Your task to perform on an android device: Go to Yahoo.com Image 0: 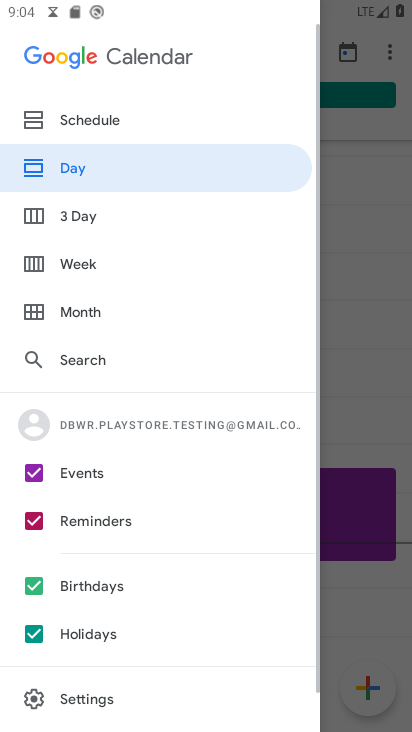
Step 0: press home button
Your task to perform on an android device: Go to Yahoo.com Image 1: 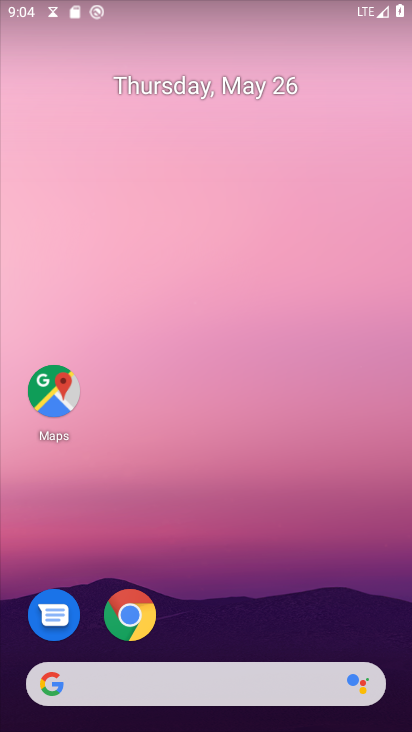
Step 1: drag from (216, 607) to (246, 242)
Your task to perform on an android device: Go to Yahoo.com Image 2: 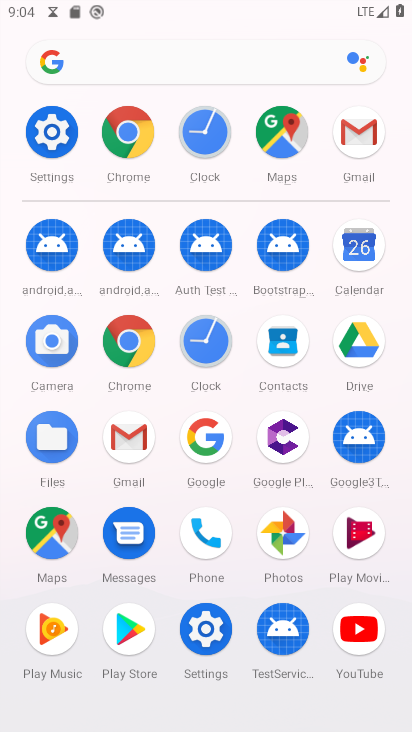
Step 2: click (125, 129)
Your task to perform on an android device: Go to Yahoo.com Image 3: 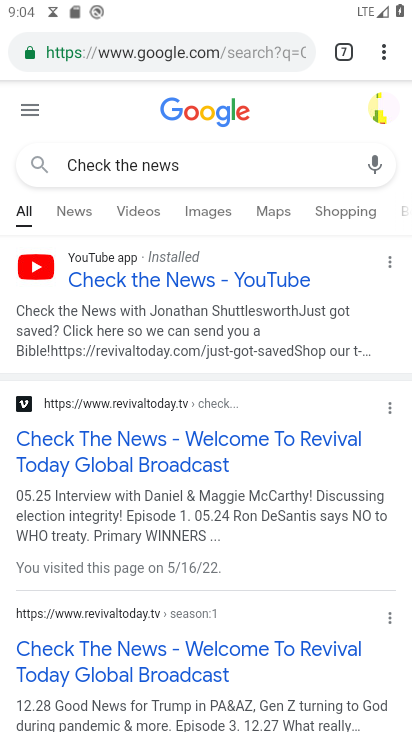
Step 3: click (389, 46)
Your task to perform on an android device: Go to Yahoo.com Image 4: 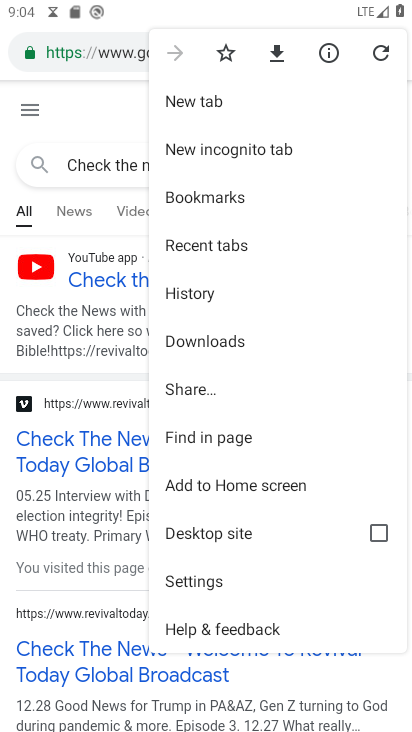
Step 4: click (230, 94)
Your task to perform on an android device: Go to Yahoo.com Image 5: 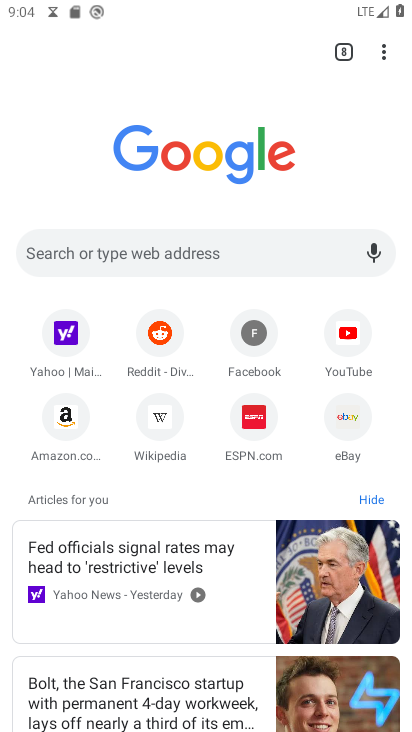
Step 5: click (63, 335)
Your task to perform on an android device: Go to Yahoo.com Image 6: 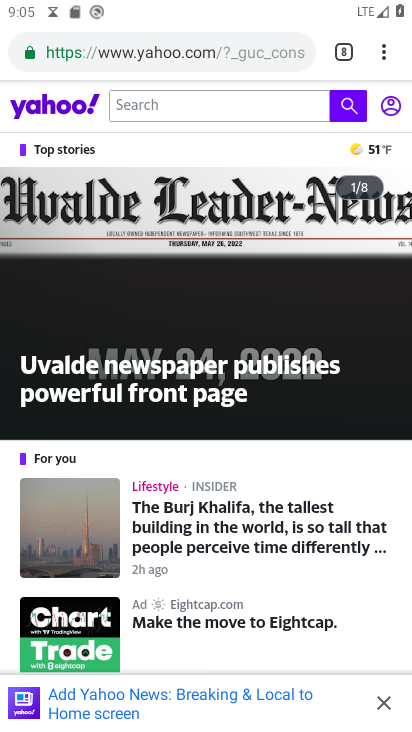
Step 6: task complete